Your task to perform on an android device: turn on location history Image 0: 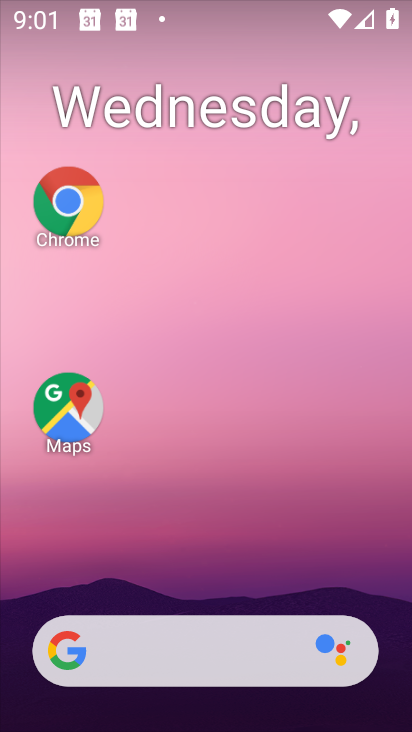
Step 0: drag from (203, 603) to (133, 46)
Your task to perform on an android device: turn on location history Image 1: 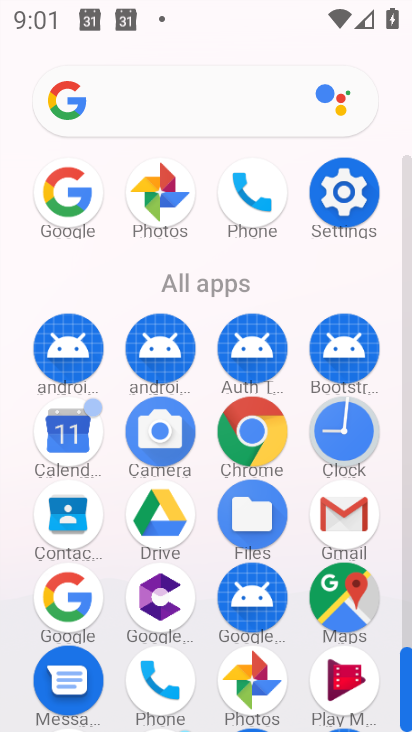
Step 1: click (320, 181)
Your task to perform on an android device: turn on location history Image 2: 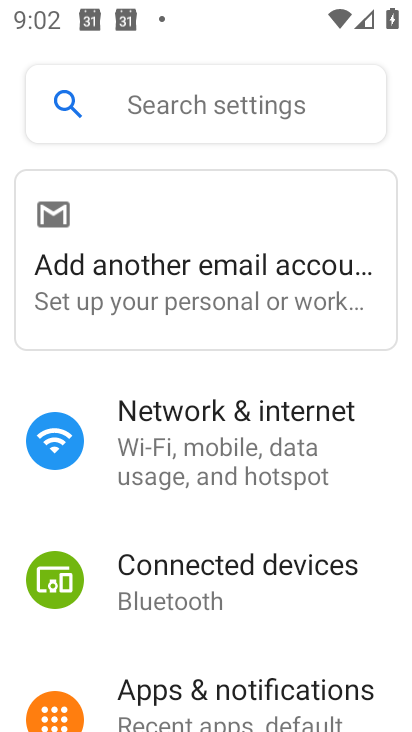
Step 2: drag from (330, 646) to (263, 27)
Your task to perform on an android device: turn on location history Image 3: 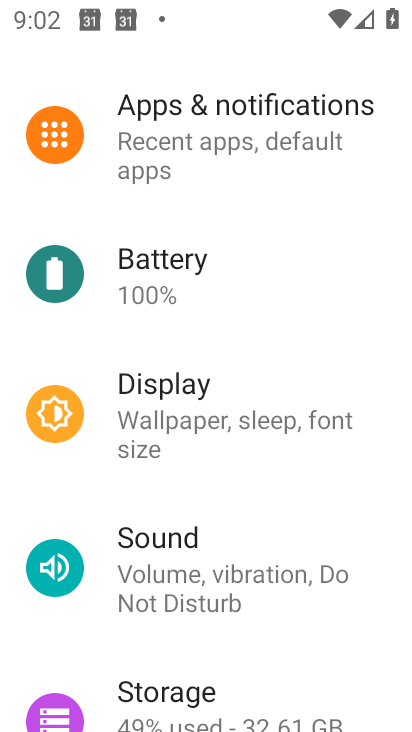
Step 3: drag from (246, 482) to (193, 115)
Your task to perform on an android device: turn on location history Image 4: 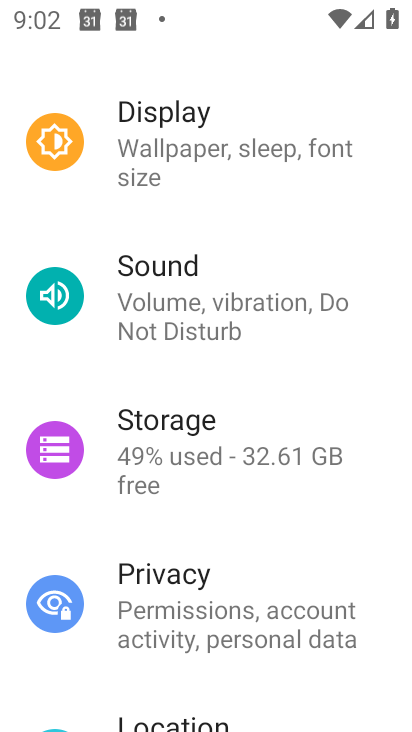
Step 4: click (112, 708)
Your task to perform on an android device: turn on location history Image 5: 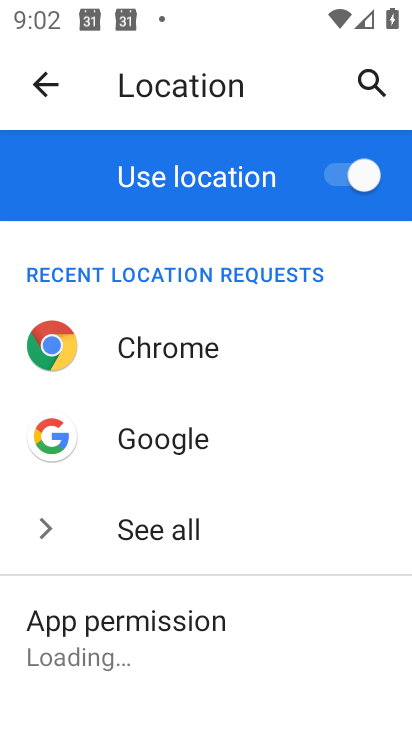
Step 5: drag from (219, 648) to (165, 97)
Your task to perform on an android device: turn on location history Image 6: 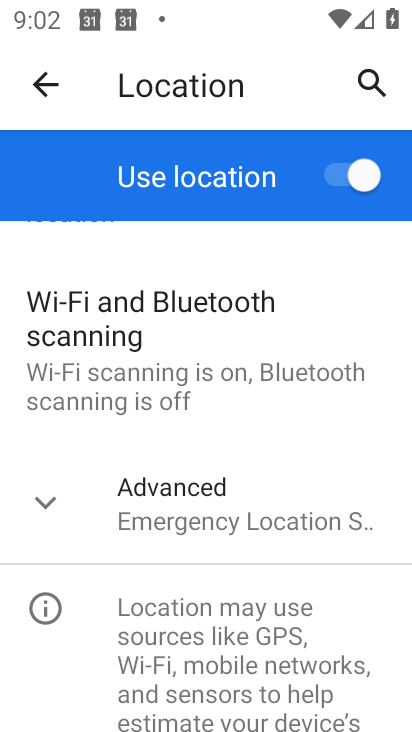
Step 6: click (114, 476)
Your task to perform on an android device: turn on location history Image 7: 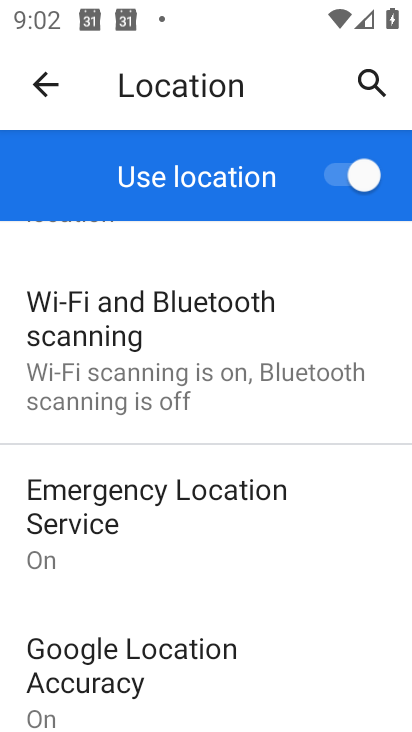
Step 7: drag from (194, 609) to (89, 199)
Your task to perform on an android device: turn on location history Image 8: 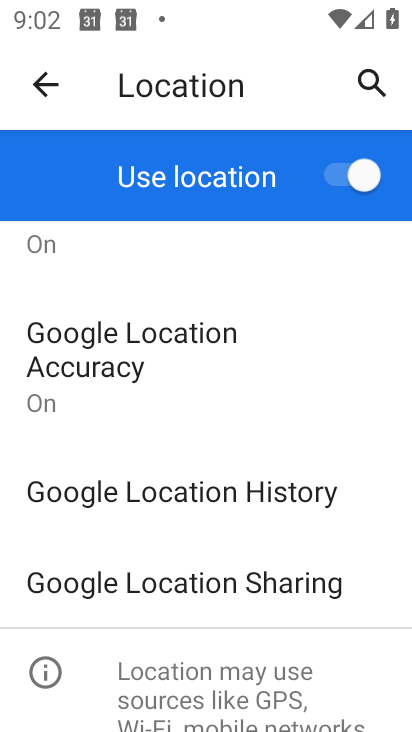
Step 8: click (119, 495)
Your task to perform on an android device: turn on location history Image 9: 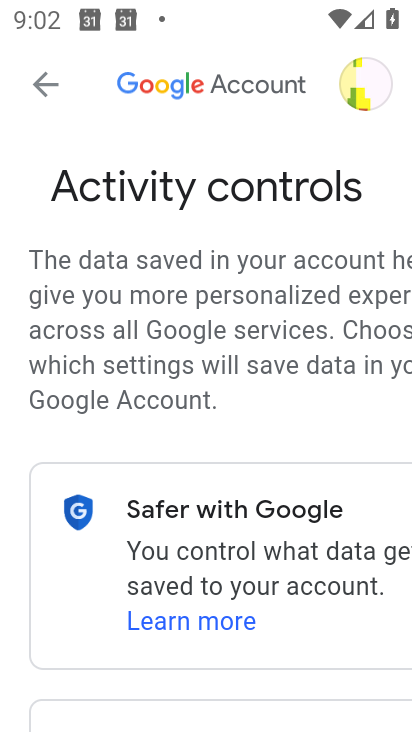
Step 9: drag from (289, 680) to (189, 105)
Your task to perform on an android device: turn on location history Image 10: 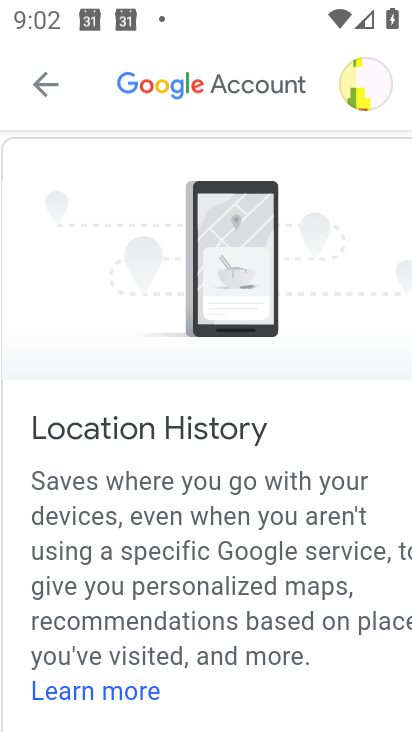
Step 10: drag from (295, 671) to (187, 56)
Your task to perform on an android device: turn on location history Image 11: 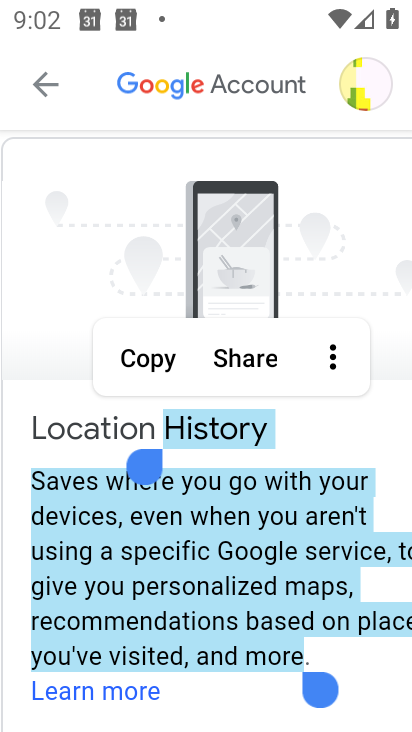
Step 11: click (269, 678)
Your task to perform on an android device: turn on location history Image 12: 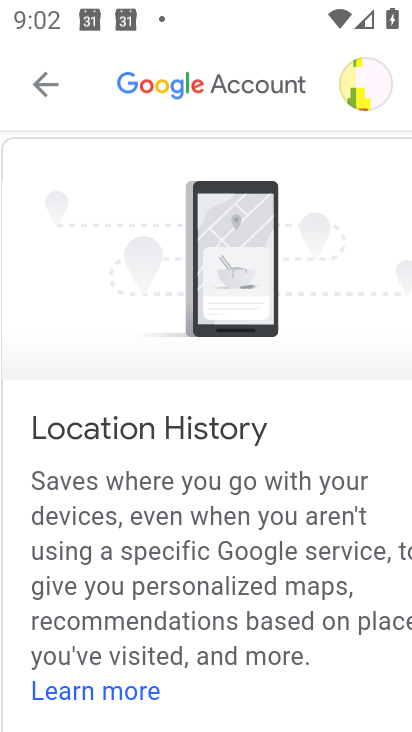
Step 12: drag from (269, 678) to (130, 320)
Your task to perform on an android device: turn on location history Image 13: 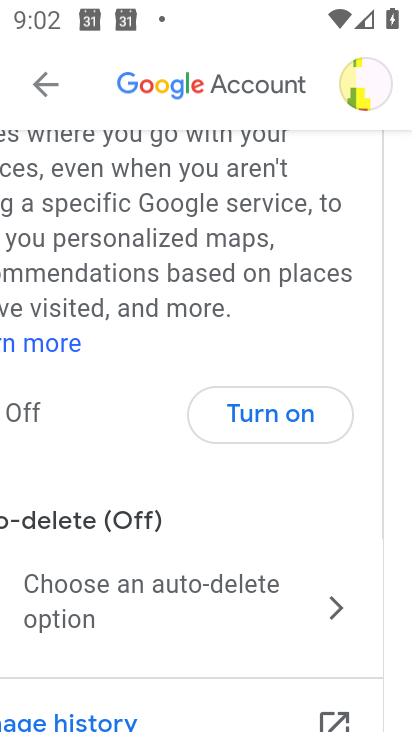
Step 13: click (266, 406)
Your task to perform on an android device: turn on location history Image 14: 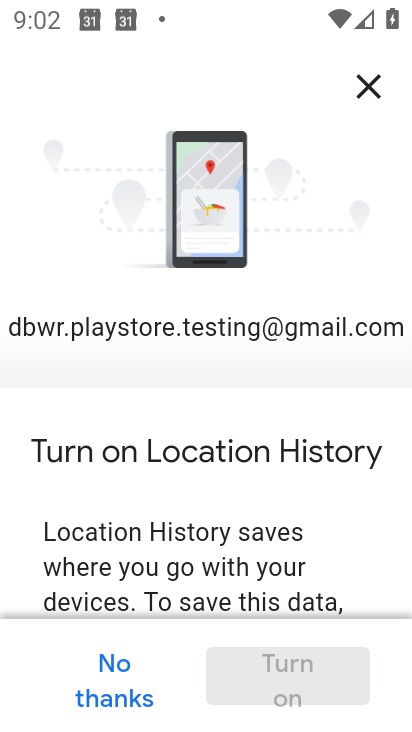
Step 14: drag from (302, 589) to (199, 39)
Your task to perform on an android device: turn on location history Image 15: 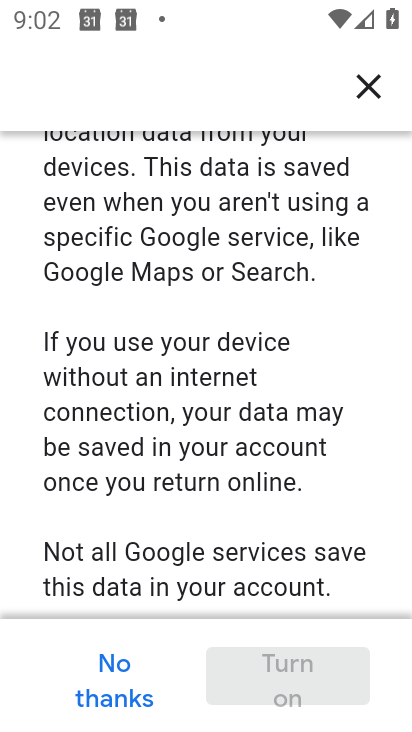
Step 15: drag from (272, 474) to (157, 12)
Your task to perform on an android device: turn on location history Image 16: 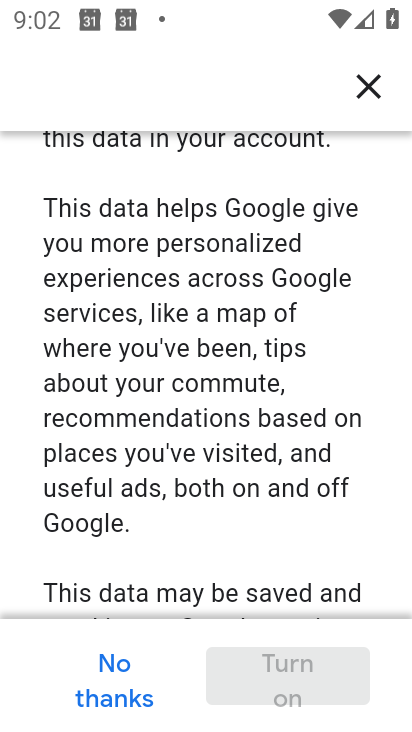
Step 16: drag from (259, 448) to (221, 39)
Your task to perform on an android device: turn on location history Image 17: 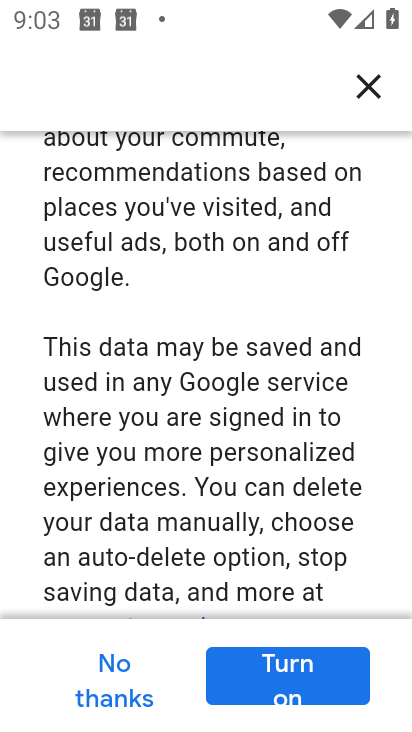
Step 17: click (265, 688)
Your task to perform on an android device: turn on location history Image 18: 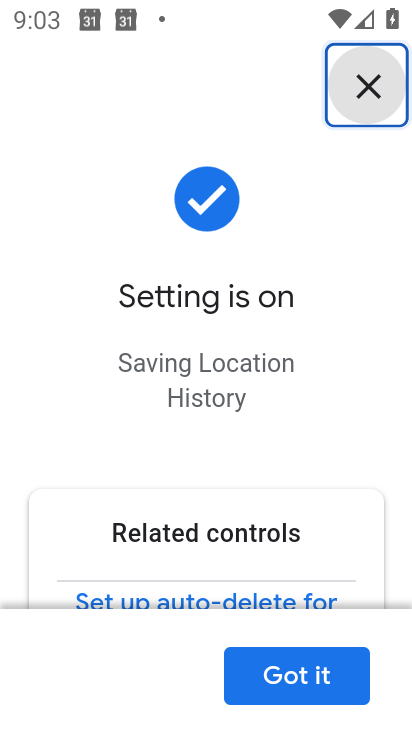
Step 18: click (265, 688)
Your task to perform on an android device: turn on location history Image 19: 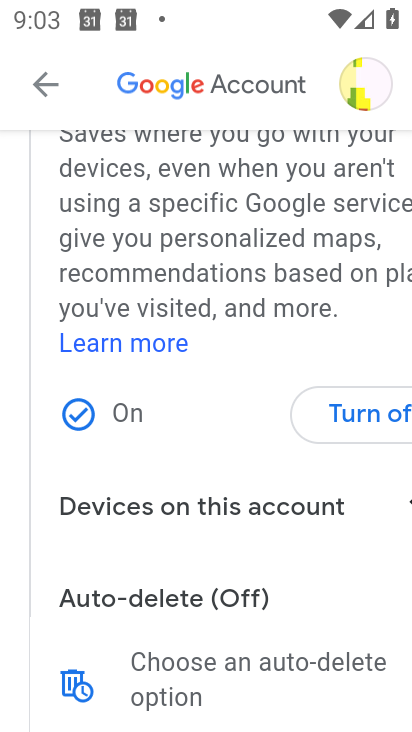
Step 19: task complete